Your task to perform on an android device: turn off notifications settings in the gmail app Image 0: 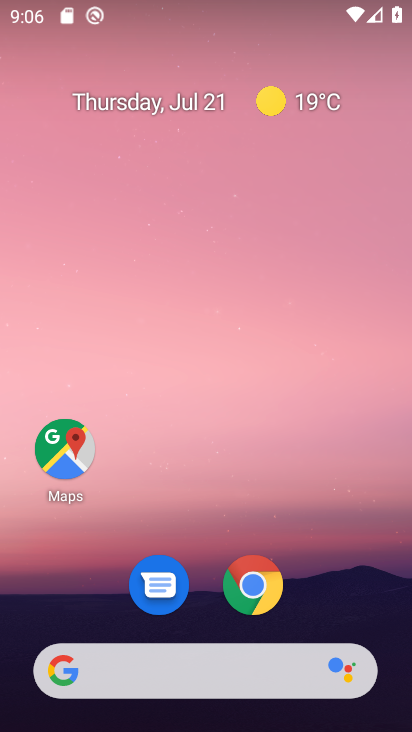
Step 0: drag from (323, 571) to (284, 94)
Your task to perform on an android device: turn off notifications settings in the gmail app Image 1: 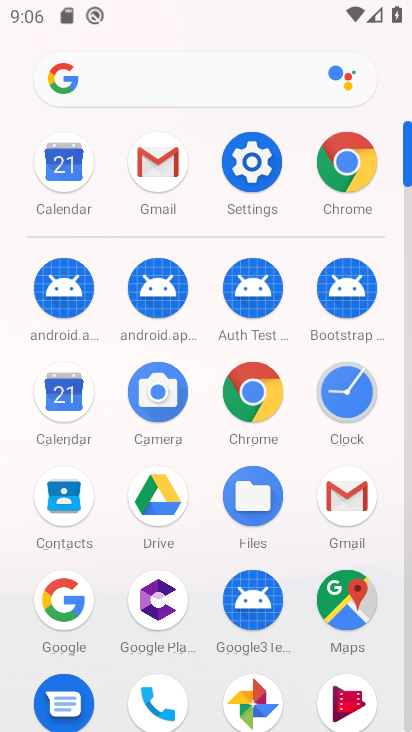
Step 1: click (156, 172)
Your task to perform on an android device: turn off notifications settings in the gmail app Image 2: 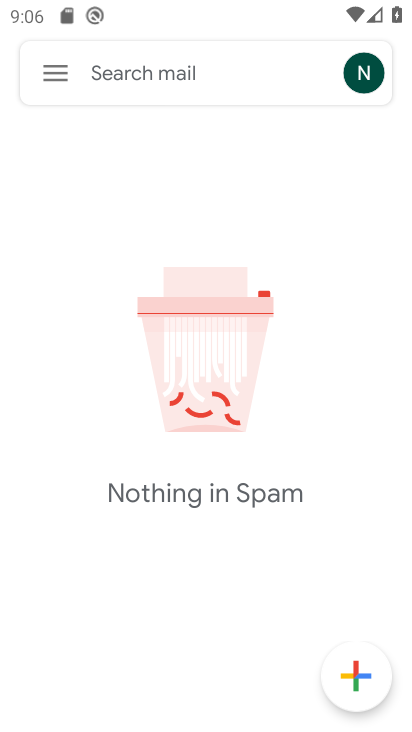
Step 2: click (53, 74)
Your task to perform on an android device: turn off notifications settings in the gmail app Image 3: 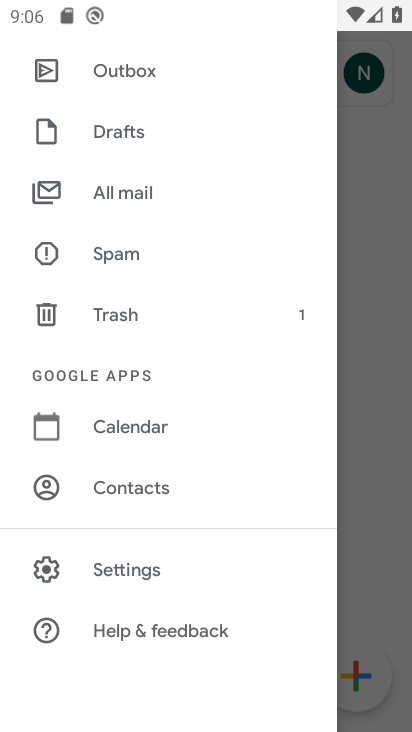
Step 3: click (130, 568)
Your task to perform on an android device: turn off notifications settings in the gmail app Image 4: 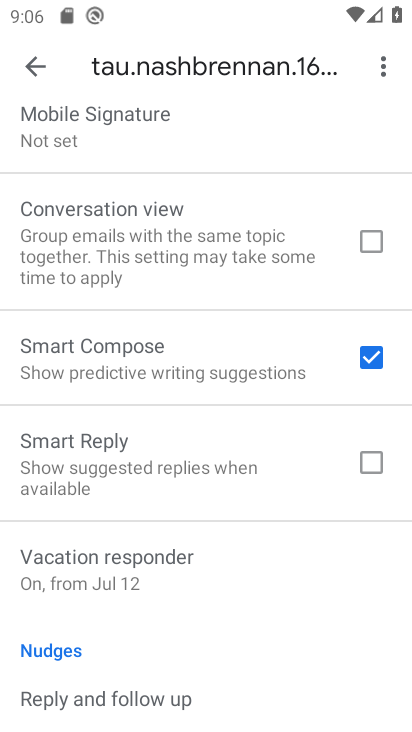
Step 4: drag from (231, 181) to (250, 673)
Your task to perform on an android device: turn off notifications settings in the gmail app Image 5: 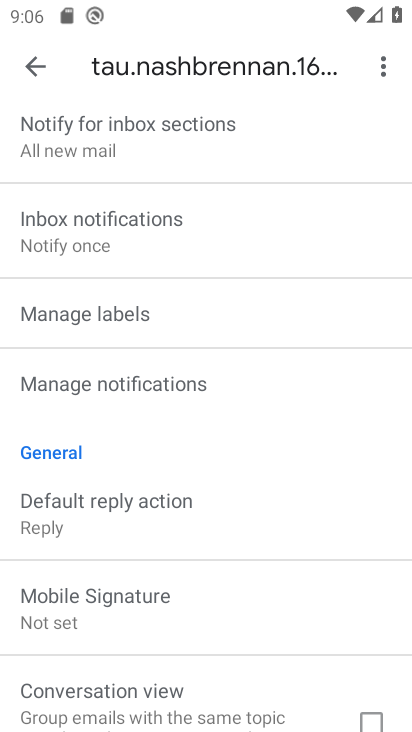
Step 5: click (216, 387)
Your task to perform on an android device: turn off notifications settings in the gmail app Image 6: 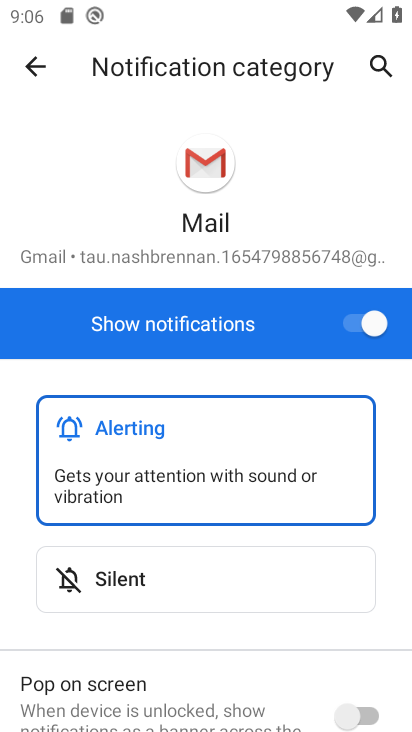
Step 6: click (367, 321)
Your task to perform on an android device: turn off notifications settings in the gmail app Image 7: 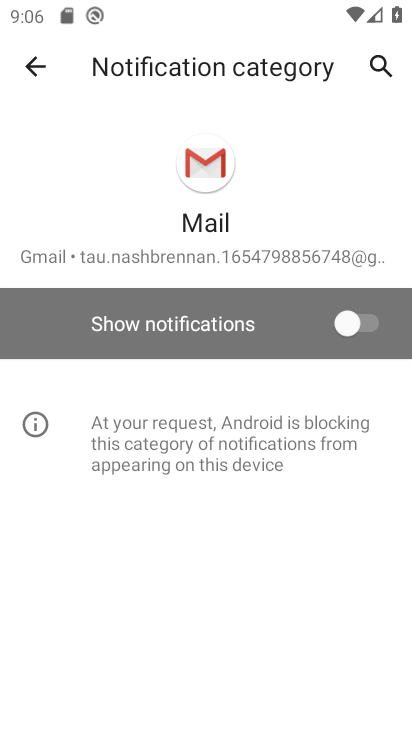
Step 7: task complete